Your task to perform on an android device: See recent photos Image 0: 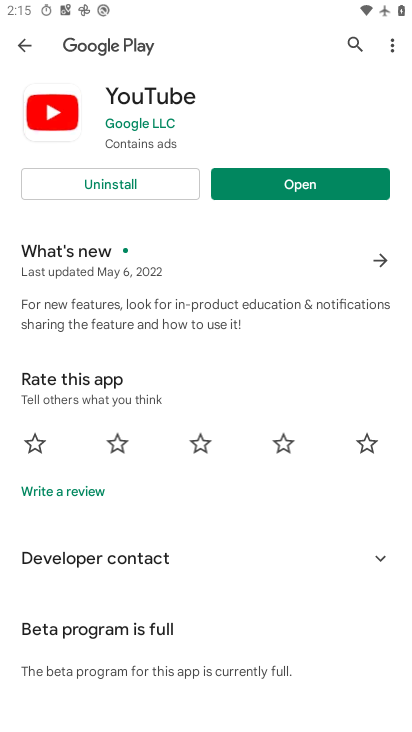
Step 0: press home button
Your task to perform on an android device: See recent photos Image 1: 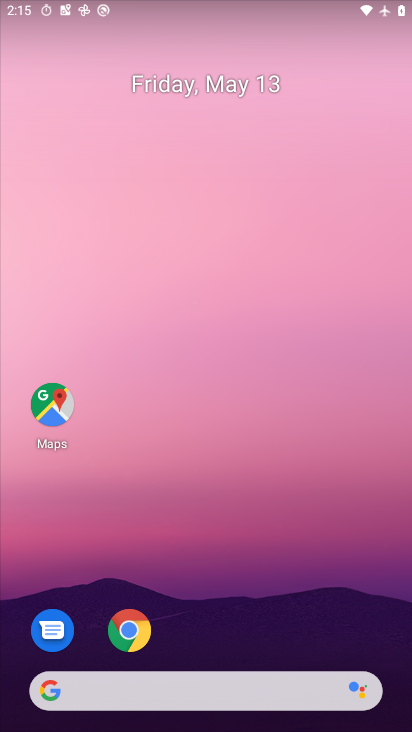
Step 1: drag from (239, 554) to (234, 239)
Your task to perform on an android device: See recent photos Image 2: 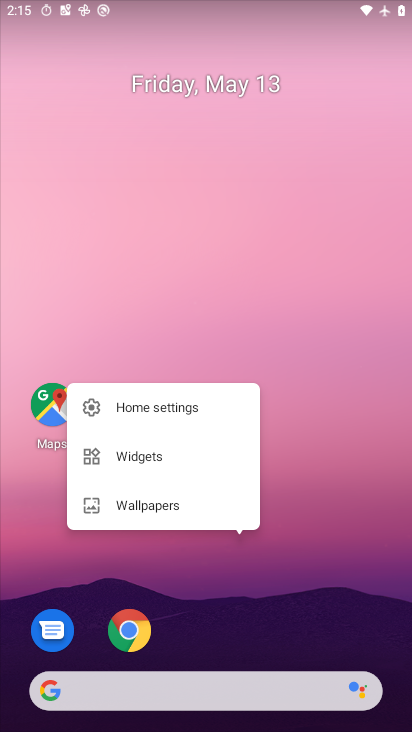
Step 2: drag from (200, 649) to (229, 192)
Your task to perform on an android device: See recent photos Image 3: 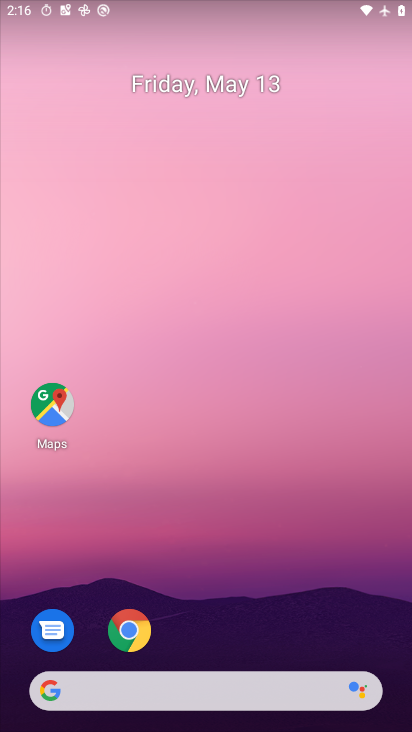
Step 3: drag from (243, 595) to (244, 174)
Your task to perform on an android device: See recent photos Image 4: 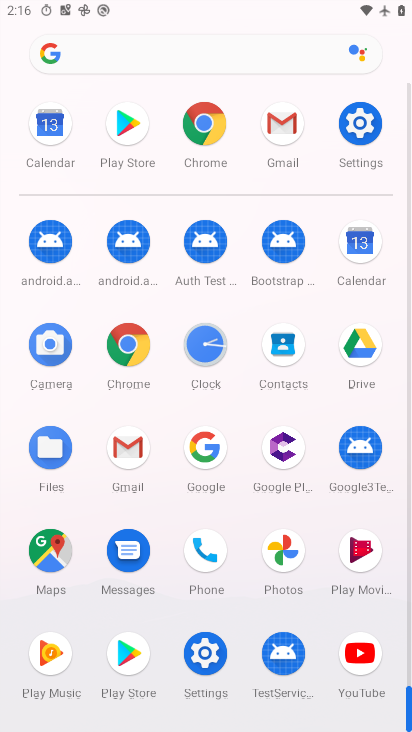
Step 4: click (285, 552)
Your task to perform on an android device: See recent photos Image 5: 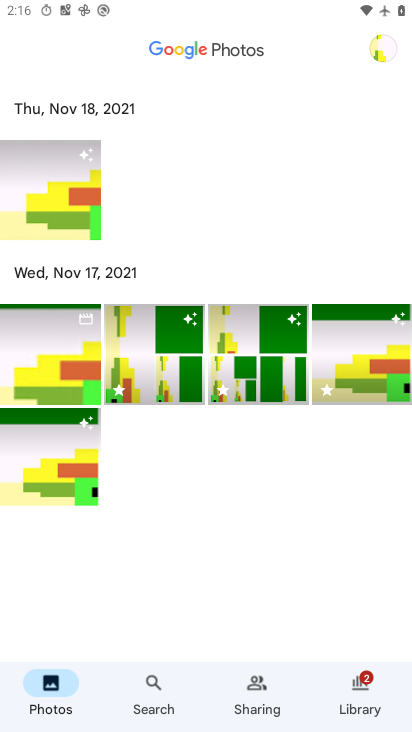
Step 5: click (70, 233)
Your task to perform on an android device: See recent photos Image 6: 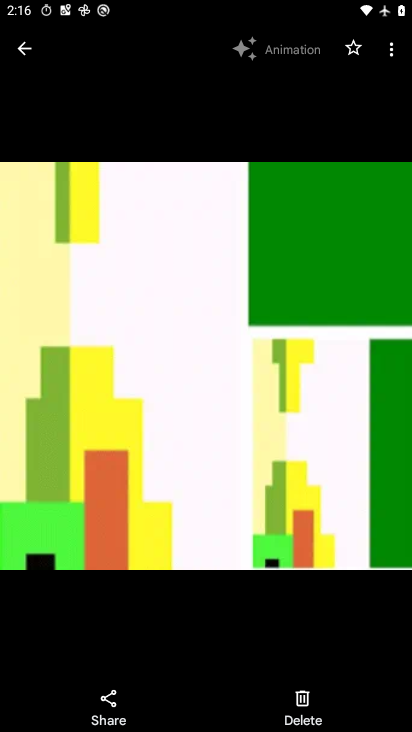
Step 6: click (29, 54)
Your task to perform on an android device: See recent photos Image 7: 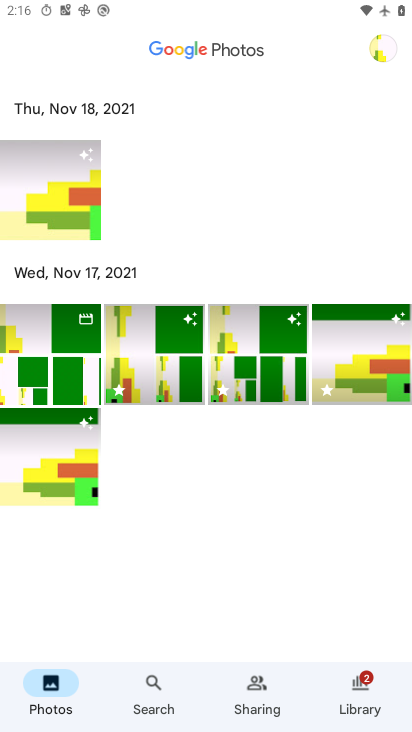
Step 7: click (164, 365)
Your task to perform on an android device: See recent photos Image 8: 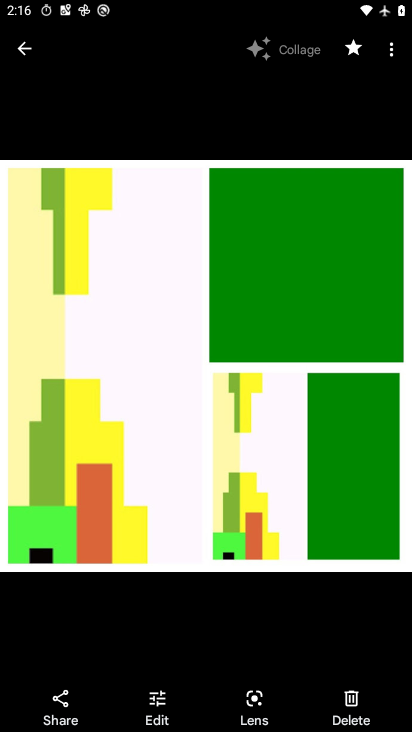
Step 8: click (22, 46)
Your task to perform on an android device: See recent photos Image 9: 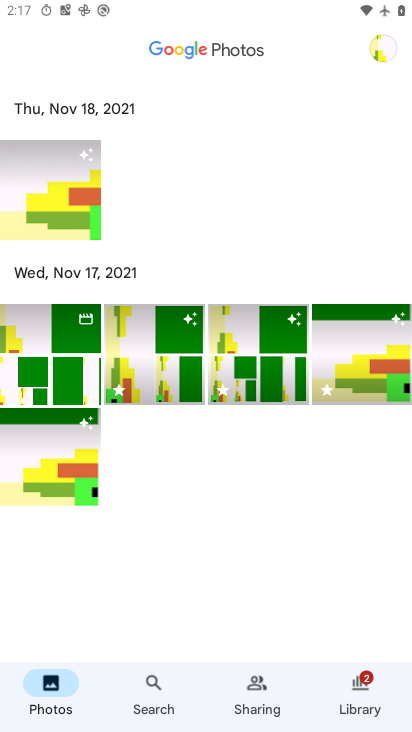
Step 9: task complete